Your task to perform on an android device: empty trash in the gmail app Image 0: 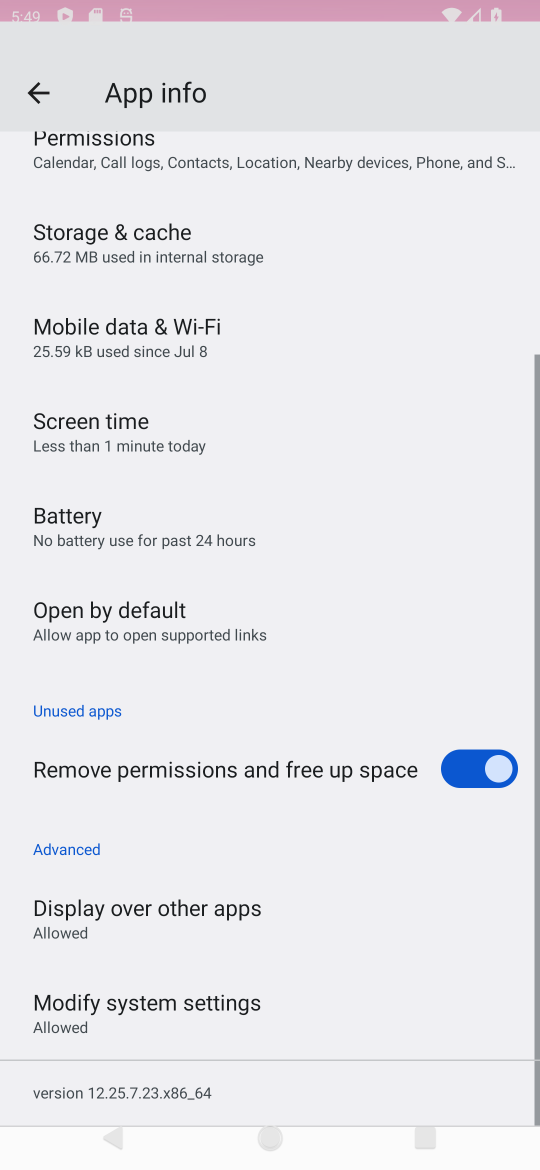
Step 0: press home button
Your task to perform on an android device: empty trash in the gmail app Image 1: 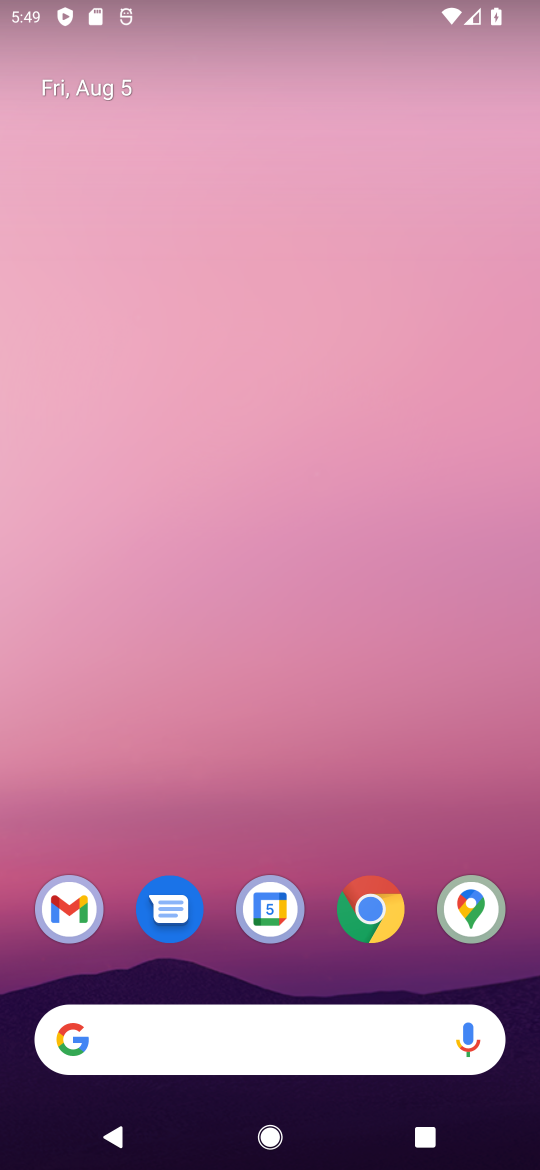
Step 1: drag from (276, 870) to (150, 207)
Your task to perform on an android device: empty trash in the gmail app Image 2: 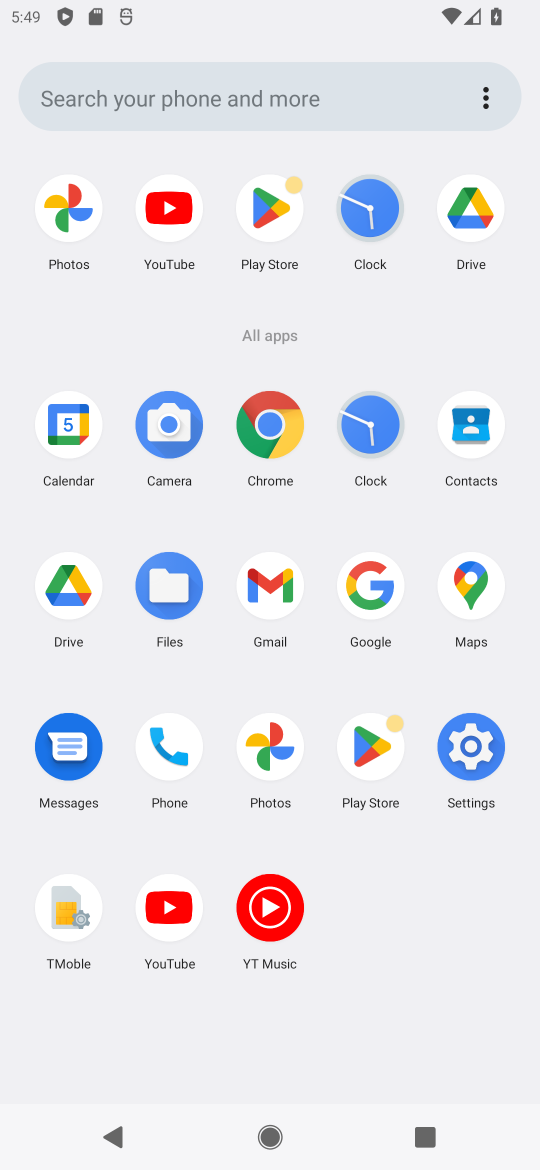
Step 2: click (272, 594)
Your task to perform on an android device: empty trash in the gmail app Image 3: 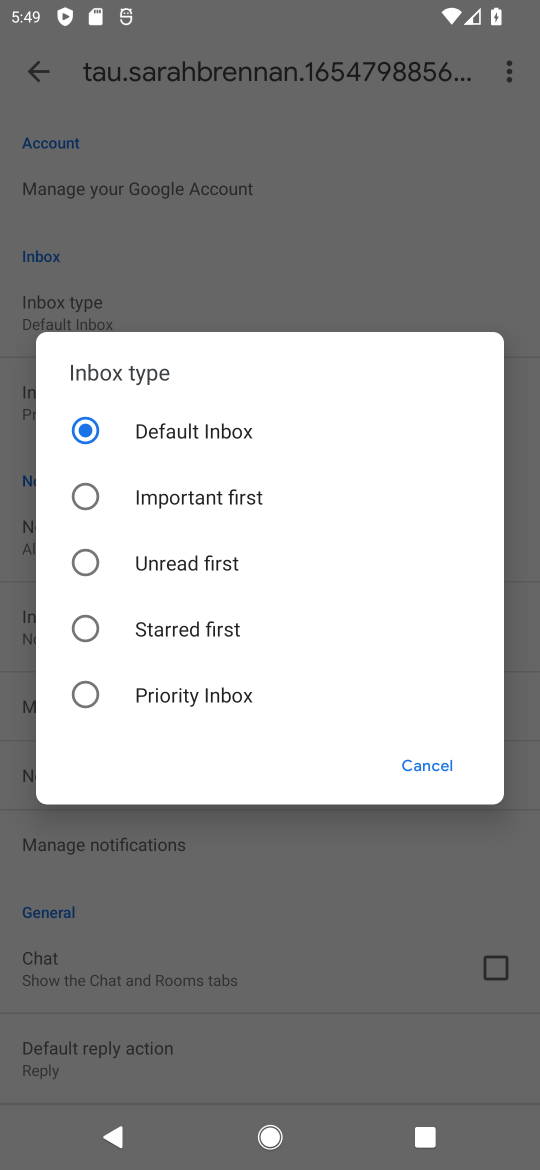
Step 3: click (422, 766)
Your task to perform on an android device: empty trash in the gmail app Image 4: 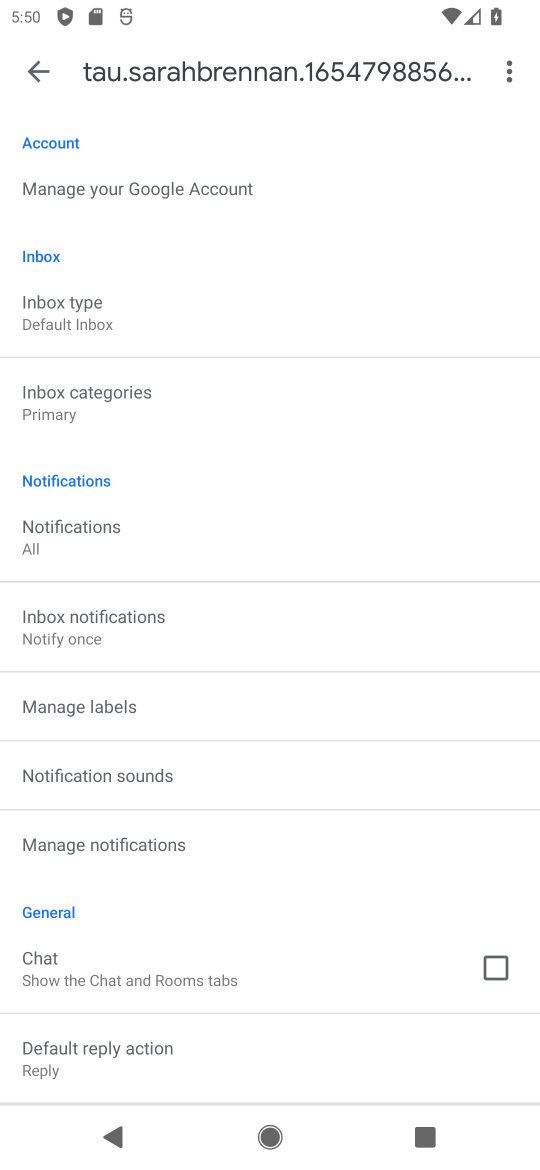
Step 4: click (34, 71)
Your task to perform on an android device: empty trash in the gmail app Image 5: 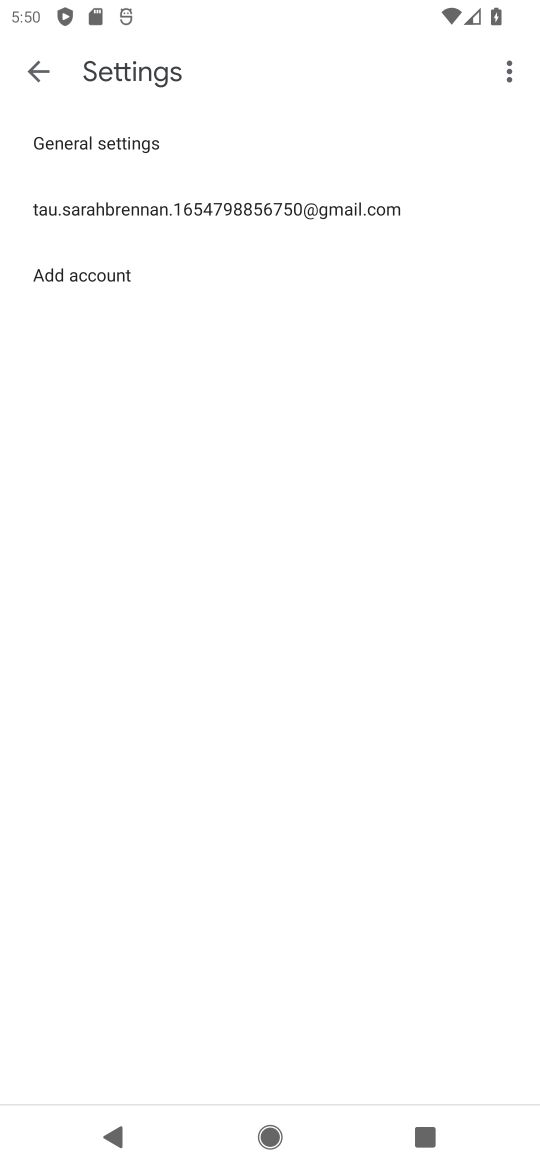
Step 5: click (34, 71)
Your task to perform on an android device: empty trash in the gmail app Image 6: 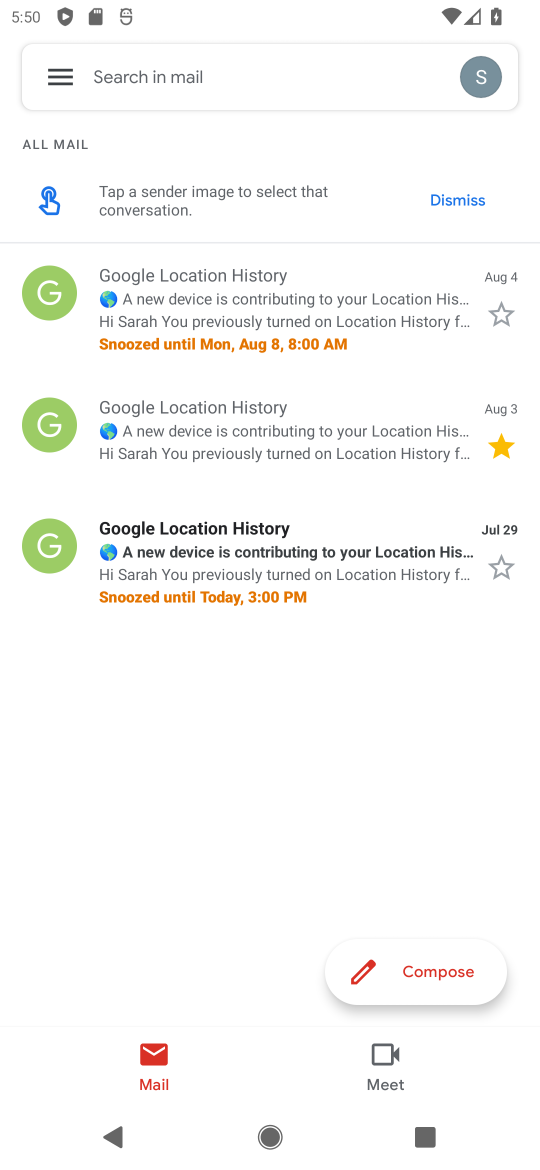
Step 6: click (63, 81)
Your task to perform on an android device: empty trash in the gmail app Image 7: 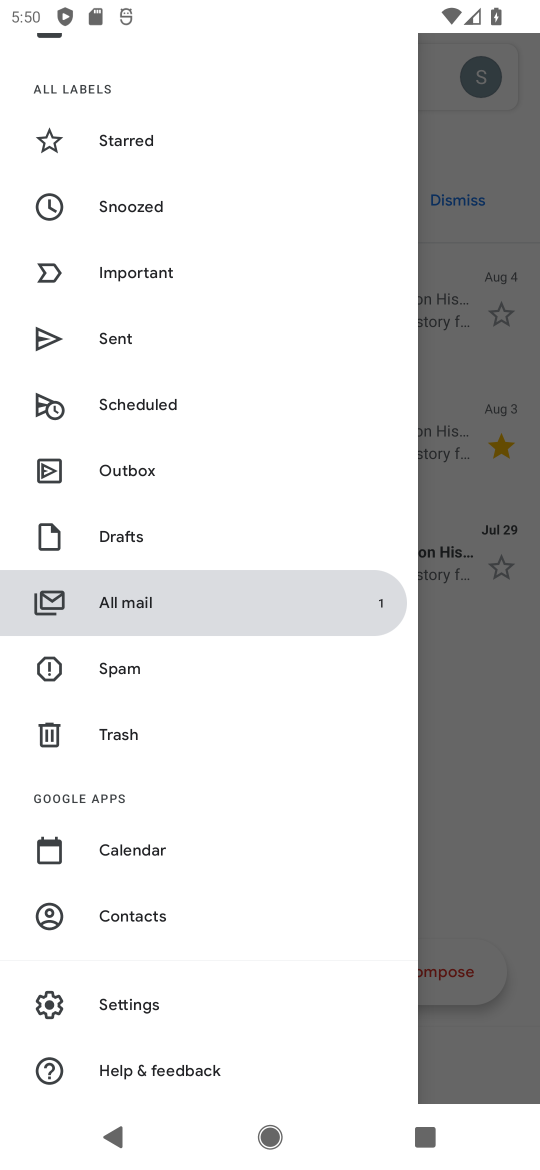
Step 7: click (137, 732)
Your task to perform on an android device: empty trash in the gmail app Image 8: 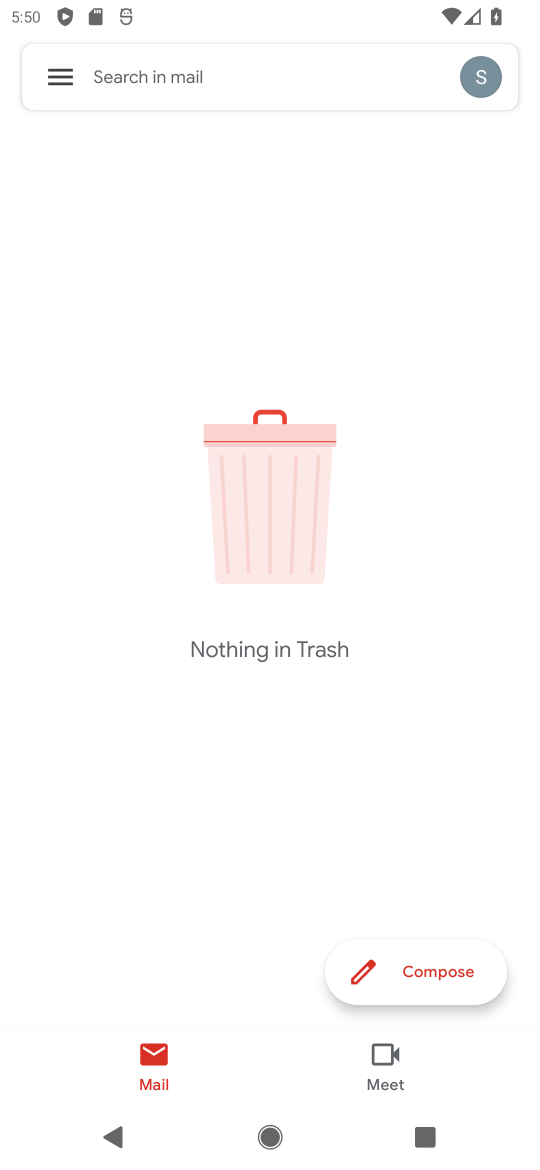
Step 8: task complete